Your task to perform on an android device: toggle show notifications on the lock screen Image 0: 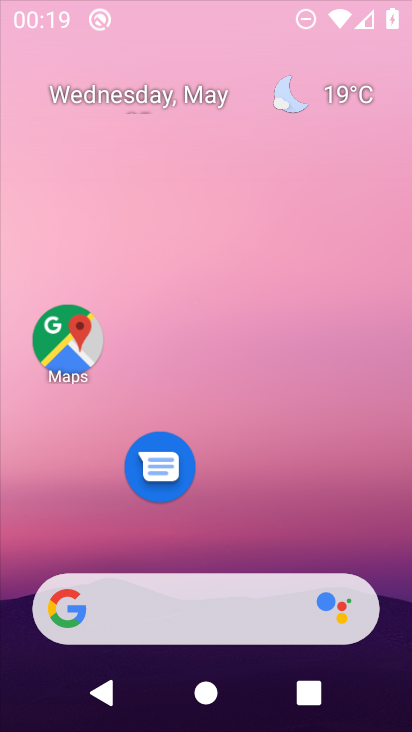
Step 0: click (358, 9)
Your task to perform on an android device: toggle show notifications on the lock screen Image 1: 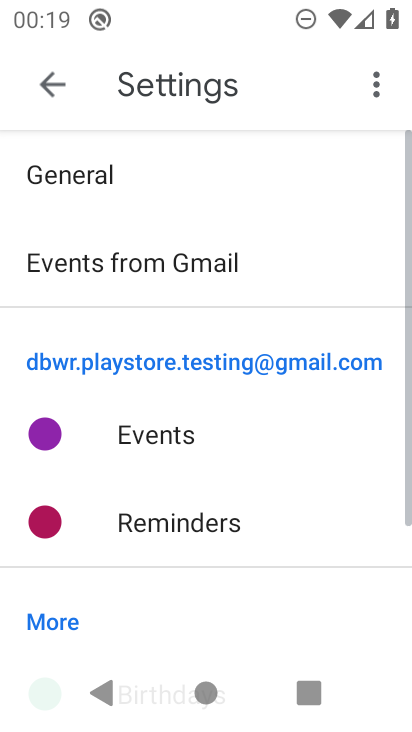
Step 1: drag from (272, 495) to (389, 82)
Your task to perform on an android device: toggle show notifications on the lock screen Image 2: 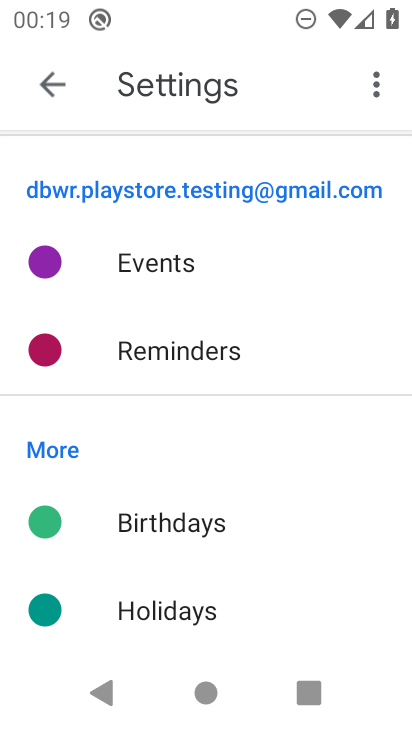
Step 2: press home button
Your task to perform on an android device: toggle show notifications on the lock screen Image 3: 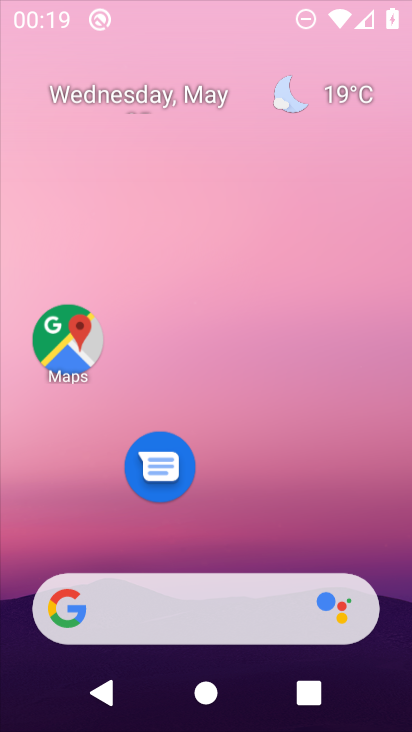
Step 3: drag from (286, 576) to (320, 7)
Your task to perform on an android device: toggle show notifications on the lock screen Image 4: 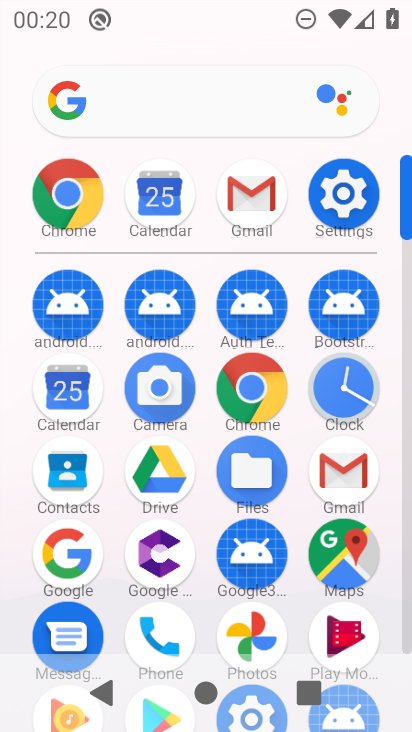
Step 4: click (355, 196)
Your task to perform on an android device: toggle show notifications on the lock screen Image 5: 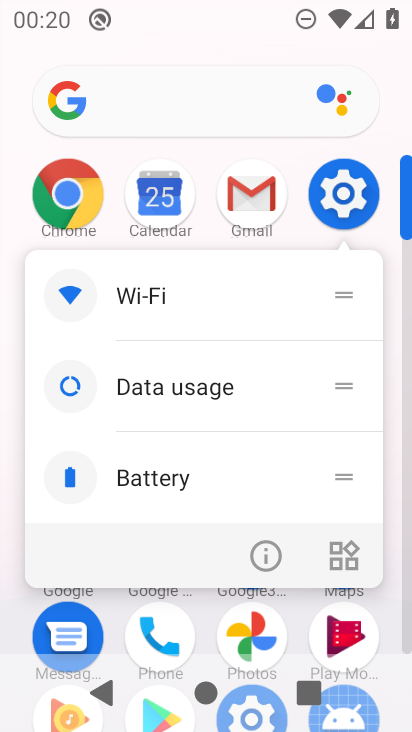
Step 5: click (270, 553)
Your task to perform on an android device: toggle show notifications on the lock screen Image 6: 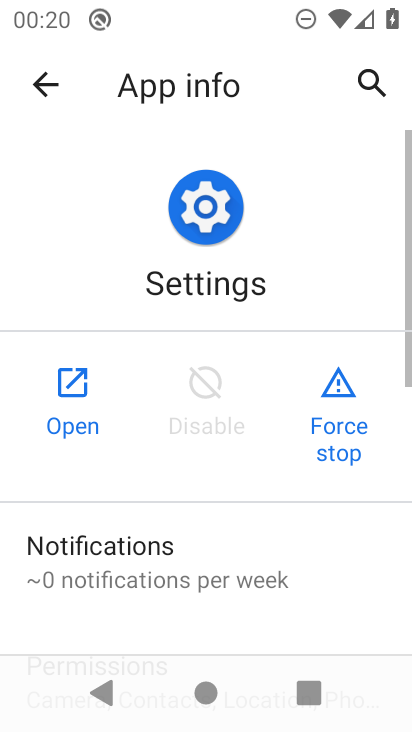
Step 6: click (60, 432)
Your task to perform on an android device: toggle show notifications on the lock screen Image 7: 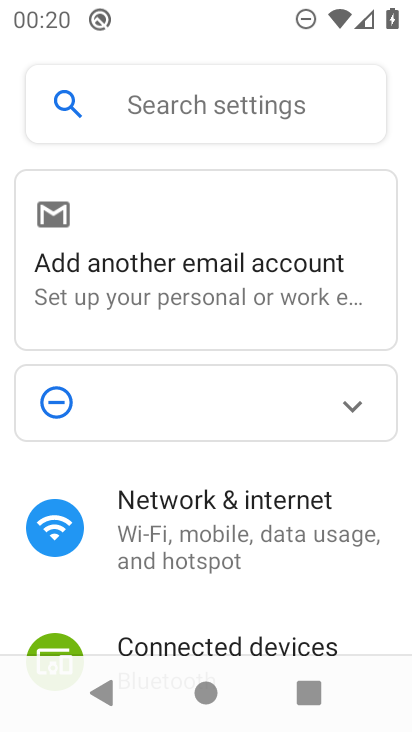
Step 7: drag from (248, 575) to (299, 2)
Your task to perform on an android device: toggle show notifications on the lock screen Image 8: 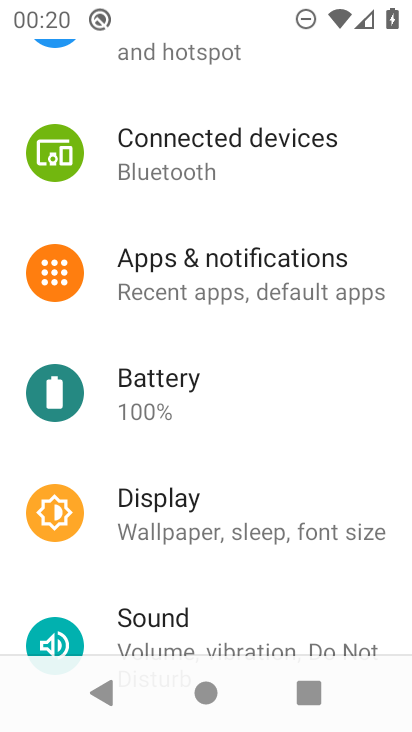
Step 8: click (252, 279)
Your task to perform on an android device: toggle show notifications on the lock screen Image 9: 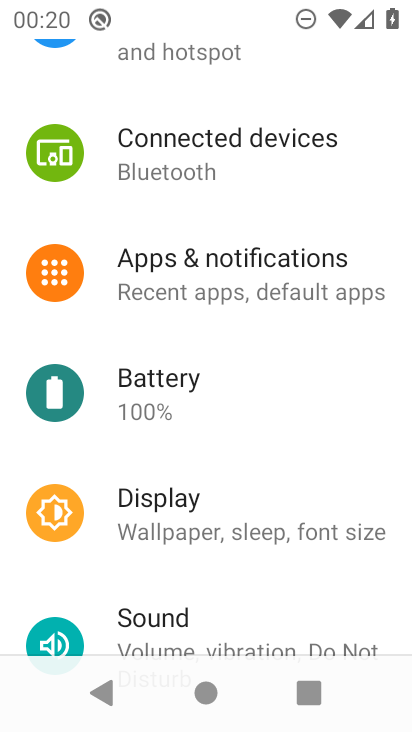
Step 9: click (252, 279)
Your task to perform on an android device: toggle show notifications on the lock screen Image 10: 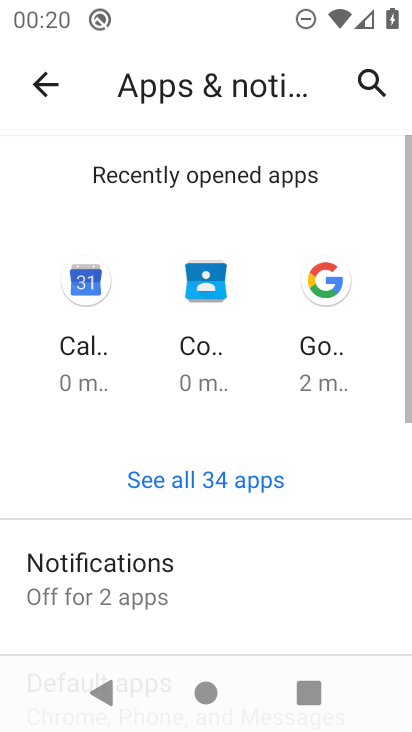
Step 10: drag from (196, 588) to (260, 225)
Your task to perform on an android device: toggle show notifications on the lock screen Image 11: 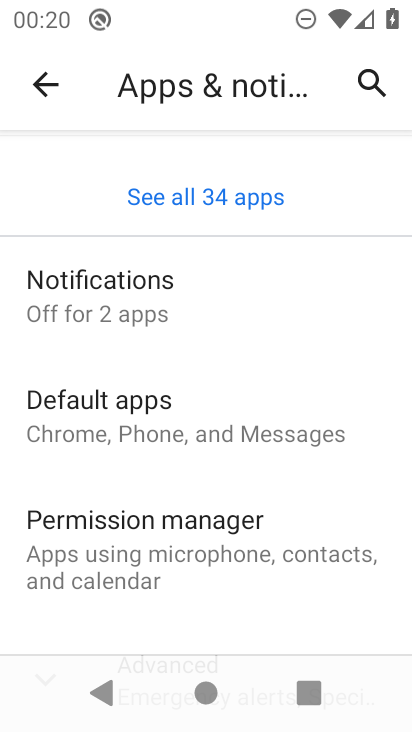
Step 11: drag from (190, 529) to (275, 235)
Your task to perform on an android device: toggle show notifications on the lock screen Image 12: 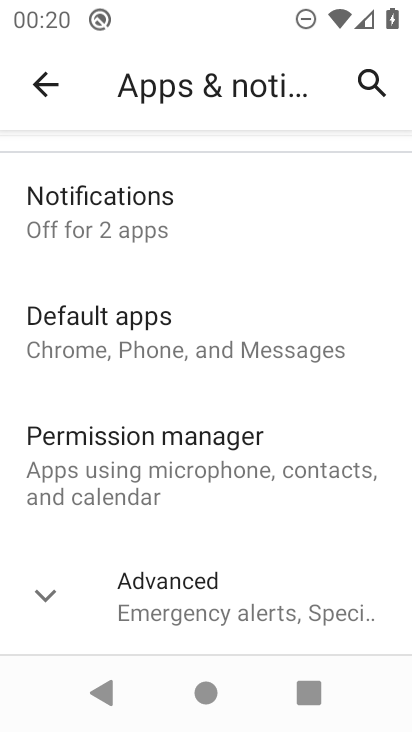
Step 12: click (228, 217)
Your task to perform on an android device: toggle show notifications on the lock screen Image 13: 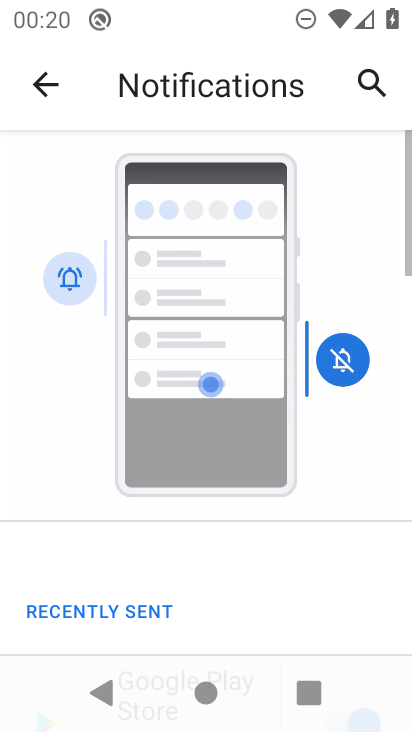
Step 13: drag from (262, 540) to (360, 11)
Your task to perform on an android device: toggle show notifications on the lock screen Image 14: 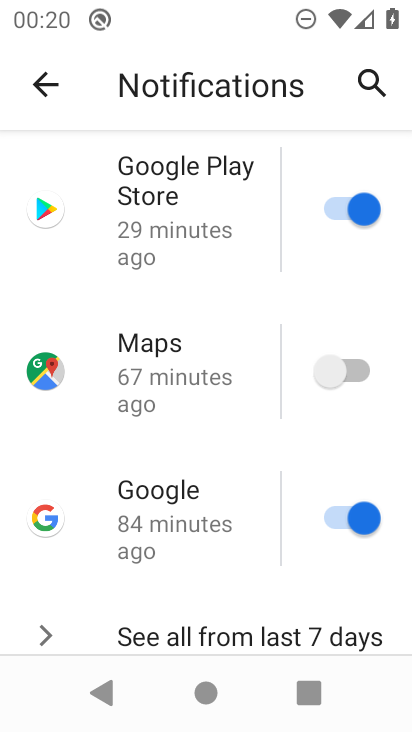
Step 14: drag from (182, 578) to (333, 91)
Your task to perform on an android device: toggle show notifications on the lock screen Image 15: 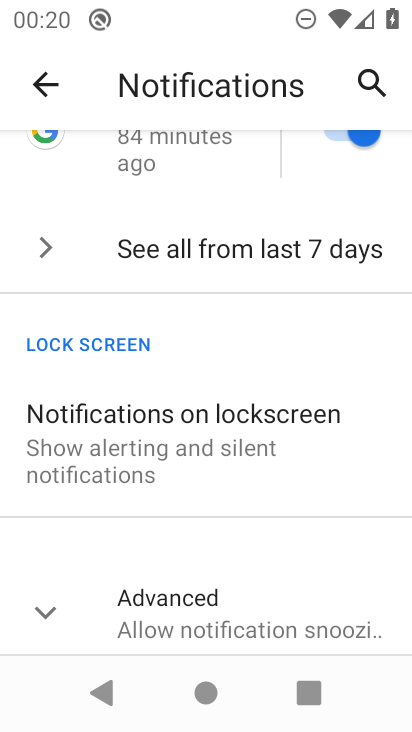
Step 15: drag from (235, 556) to (269, 359)
Your task to perform on an android device: toggle show notifications on the lock screen Image 16: 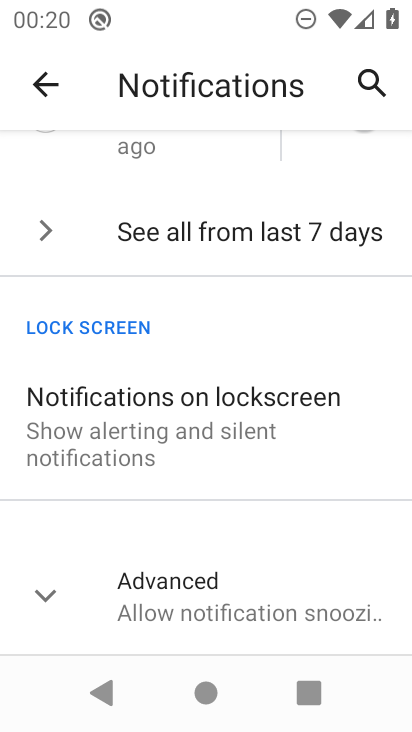
Step 16: click (239, 435)
Your task to perform on an android device: toggle show notifications on the lock screen Image 17: 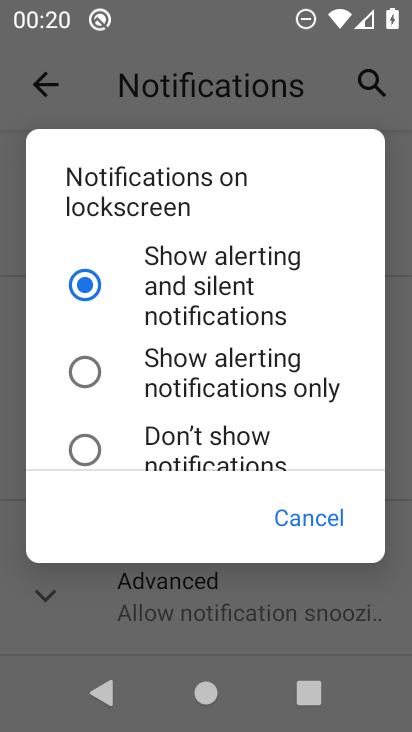
Step 17: click (167, 378)
Your task to perform on an android device: toggle show notifications on the lock screen Image 18: 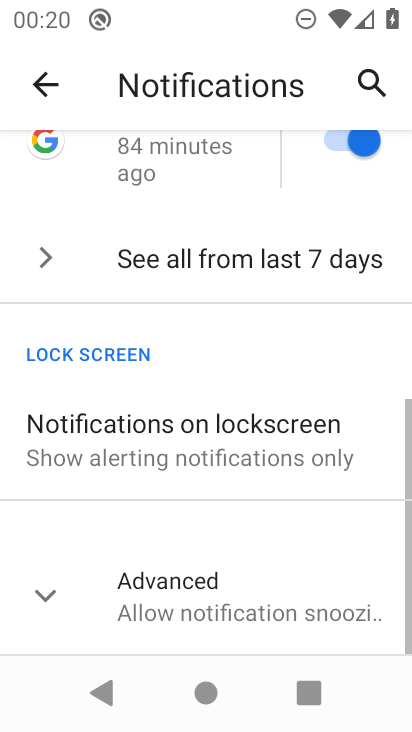
Step 18: task complete